Your task to perform on an android device: see creations saved in the google photos Image 0: 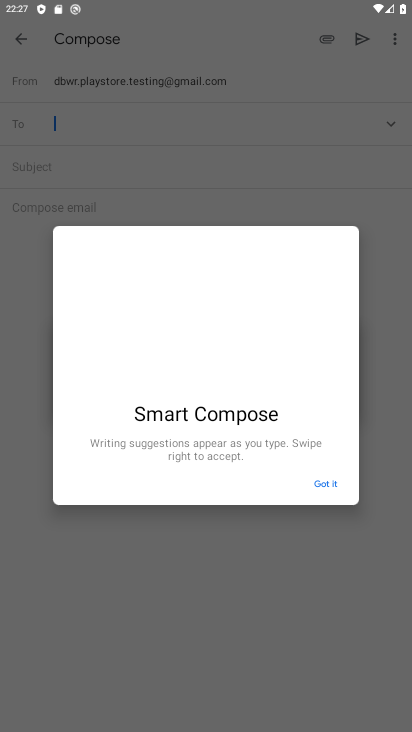
Step 0: press home button
Your task to perform on an android device: see creations saved in the google photos Image 1: 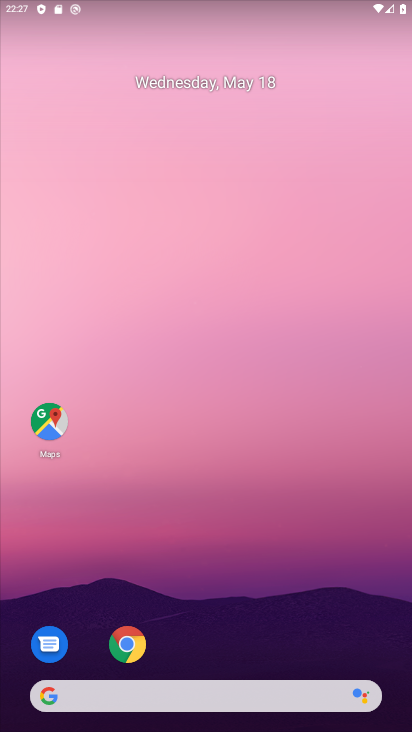
Step 1: drag from (261, 647) to (397, 52)
Your task to perform on an android device: see creations saved in the google photos Image 2: 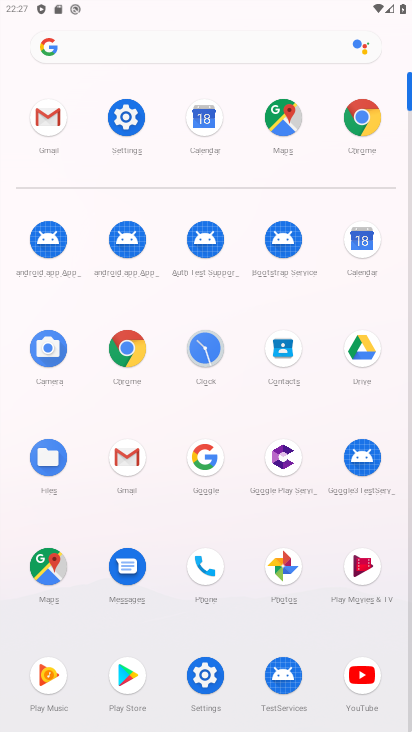
Step 2: click (284, 554)
Your task to perform on an android device: see creations saved in the google photos Image 3: 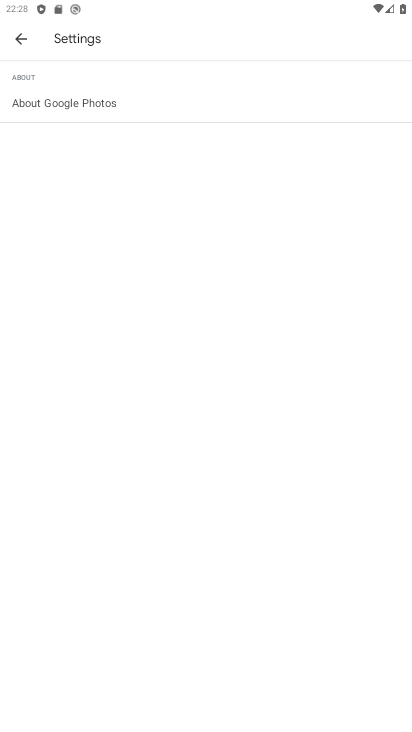
Step 3: click (23, 38)
Your task to perform on an android device: see creations saved in the google photos Image 4: 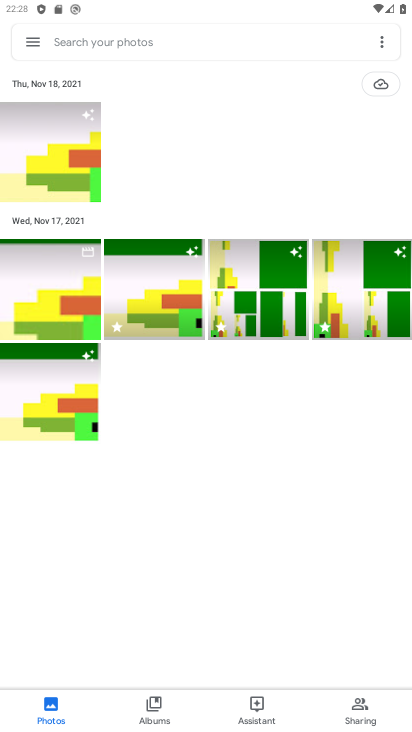
Step 4: click (269, 707)
Your task to perform on an android device: see creations saved in the google photos Image 5: 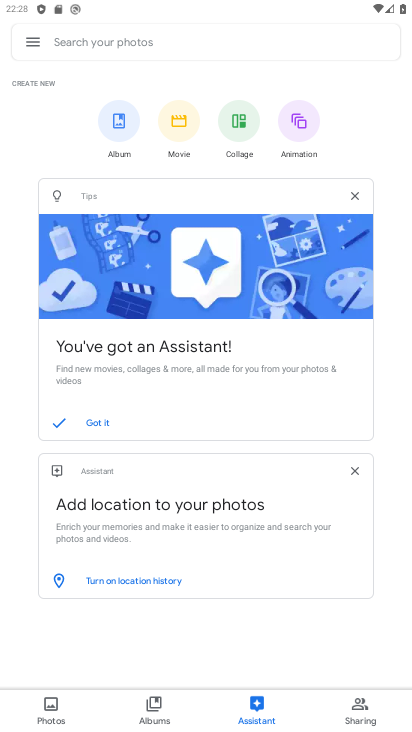
Step 5: task complete